Your task to perform on an android device: Go to privacy settings Image 0: 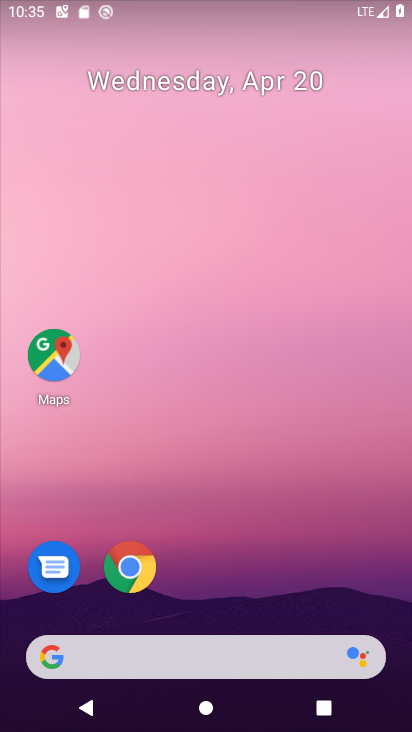
Step 0: drag from (350, 560) to (350, 50)
Your task to perform on an android device: Go to privacy settings Image 1: 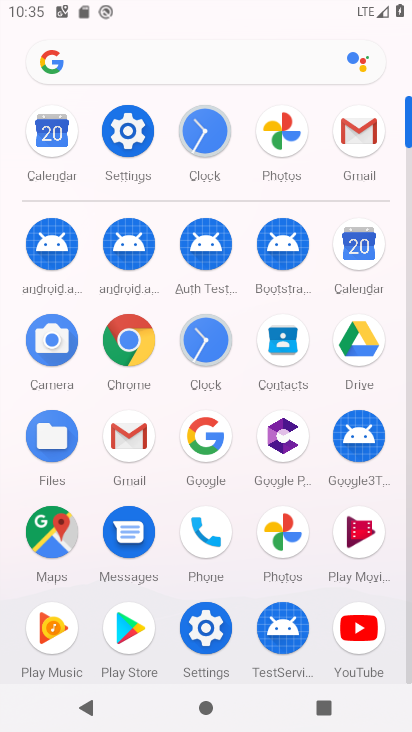
Step 1: click (127, 136)
Your task to perform on an android device: Go to privacy settings Image 2: 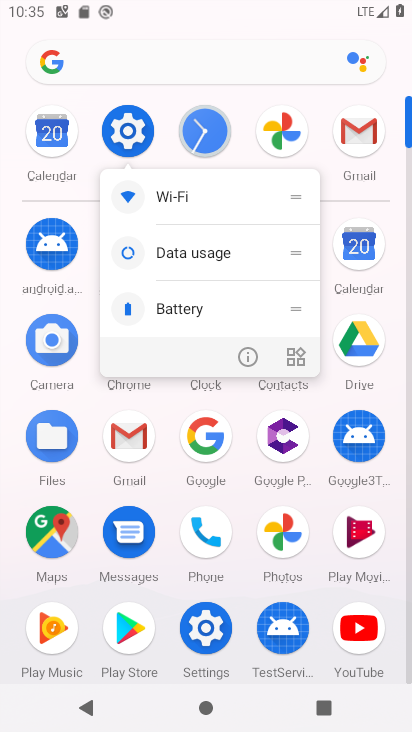
Step 2: click (140, 140)
Your task to perform on an android device: Go to privacy settings Image 3: 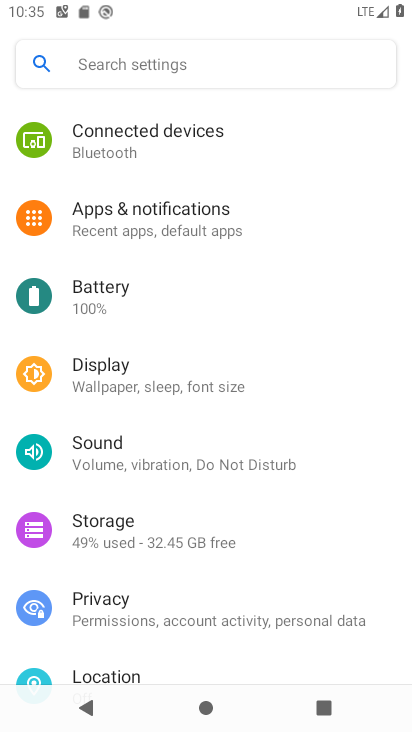
Step 3: drag from (345, 514) to (349, 396)
Your task to perform on an android device: Go to privacy settings Image 4: 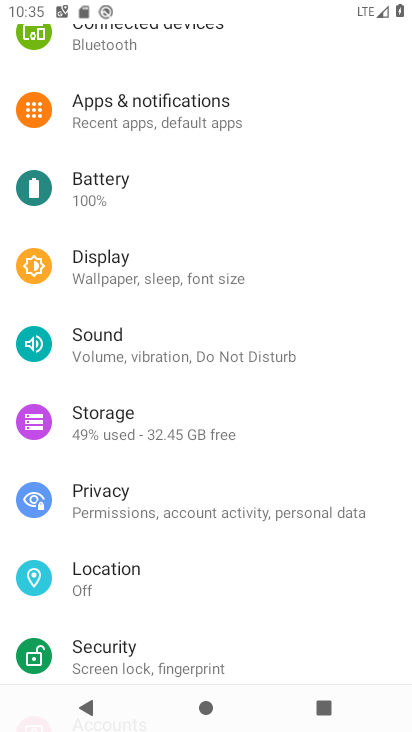
Step 4: drag from (349, 541) to (356, 405)
Your task to perform on an android device: Go to privacy settings Image 5: 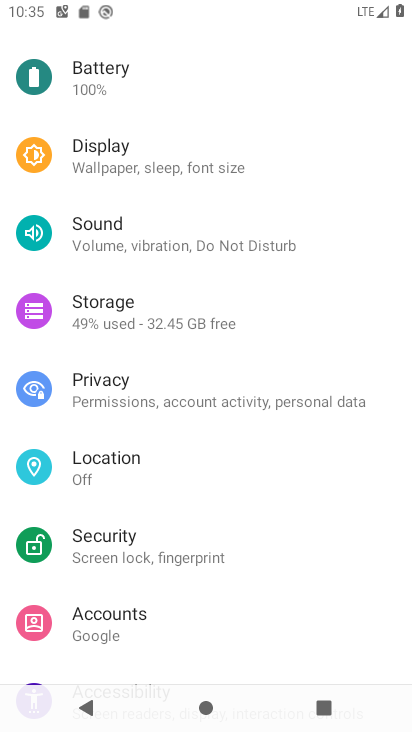
Step 5: drag from (335, 577) to (353, 355)
Your task to perform on an android device: Go to privacy settings Image 6: 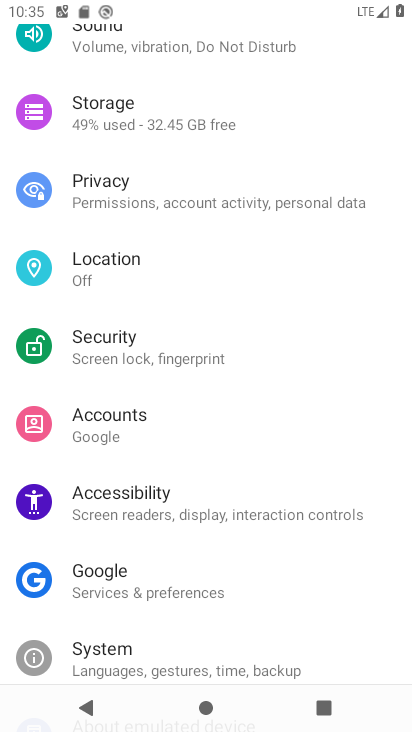
Step 6: drag from (375, 587) to (383, 425)
Your task to perform on an android device: Go to privacy settings Image 7: 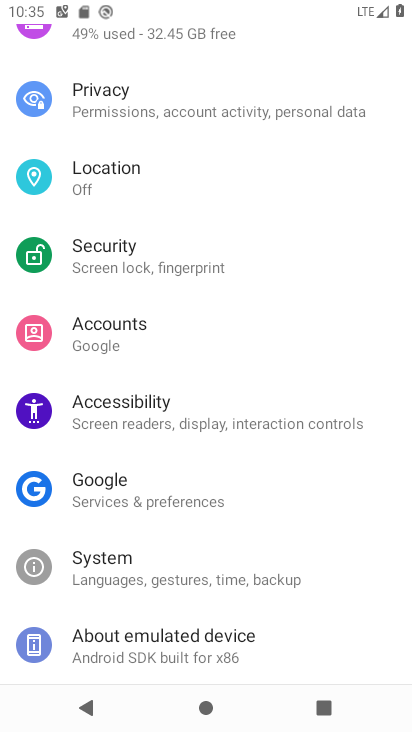
Step 7: drag from (351, 560) to (362, 425)
Your task to perform on an android device: Go to privacy settings Image 8: 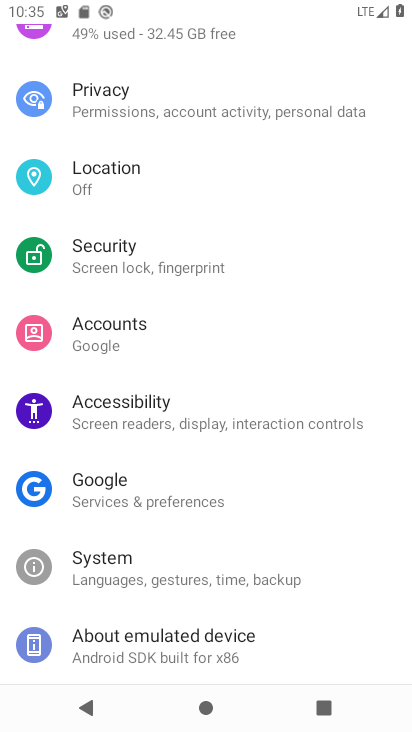
Step 8: drag from (355, 289) to (366, 522)
Your task to perform on an android device: Go to privacy settings Image 9: 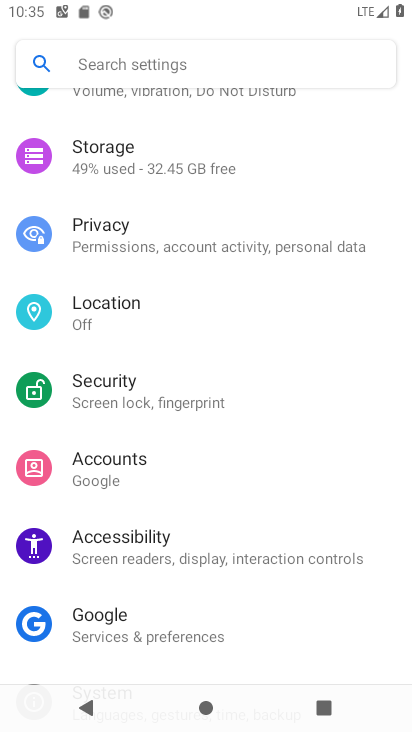
Step 9: click (318, 231)
Your task to perform on an android device: Go to privacy settings Image 10: 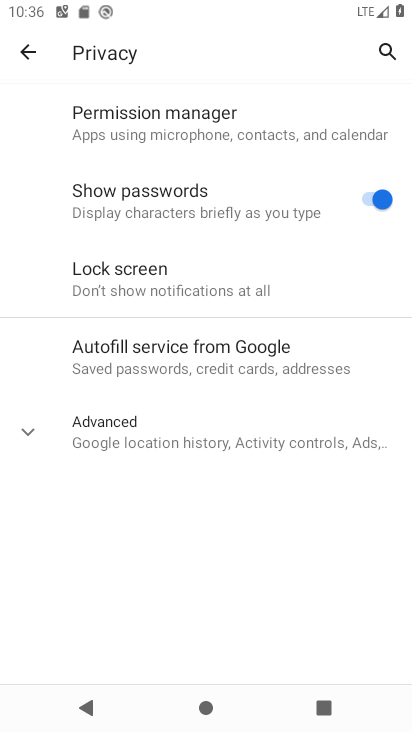
Step 10: task complete